Your task to perform on an android device: toggle wifi Image 0: 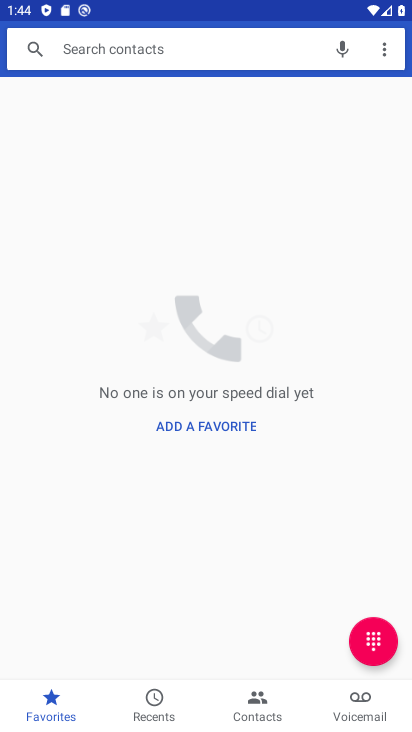
Step 0: press home button
Your task to perform on an android device: toggle wifi Image 1: 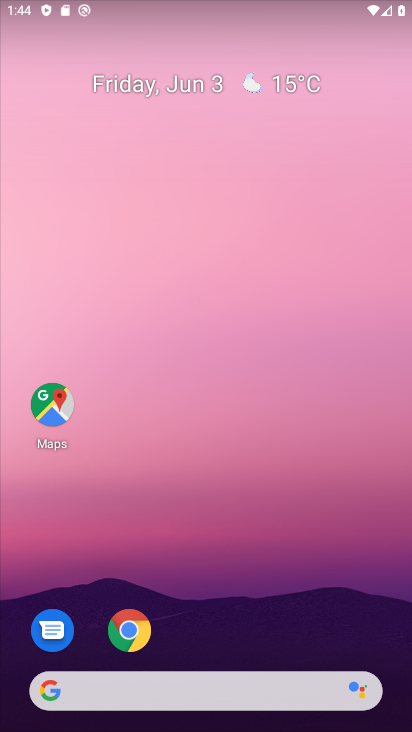
Step 1: drag from (391, 584) to (378, 84)
Your task to perform on an android device: toggle wifi Image 2: 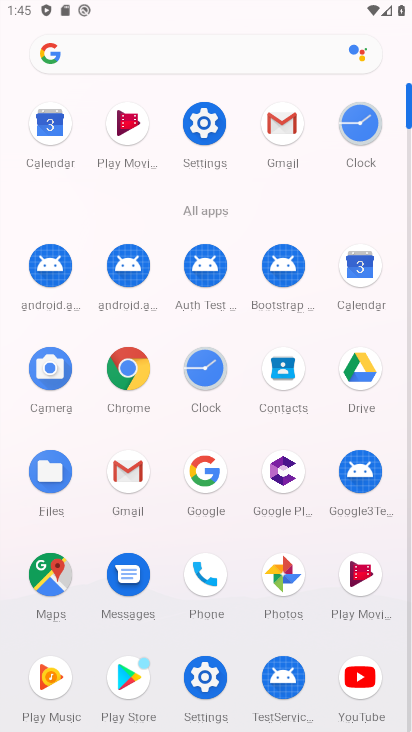
Step 2: click (202, 128)
Your task to perform on an android device: toggle wifi Image 3: 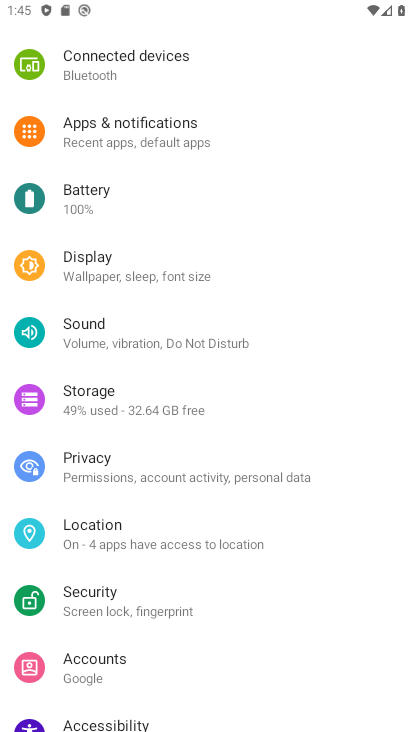
Step 3: drag from (266, 168) to (258, 614)
Your task to perform on an android device: toggle wifi Image 4: 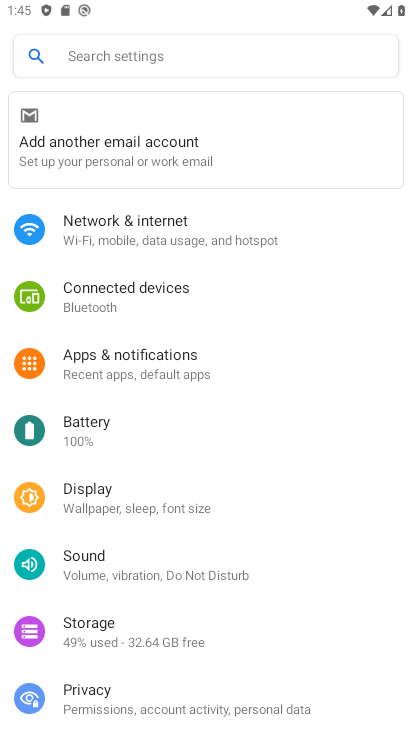
Step 4: click (160, 233)
Your task to perform on an android device: toggle wifi Image 5: 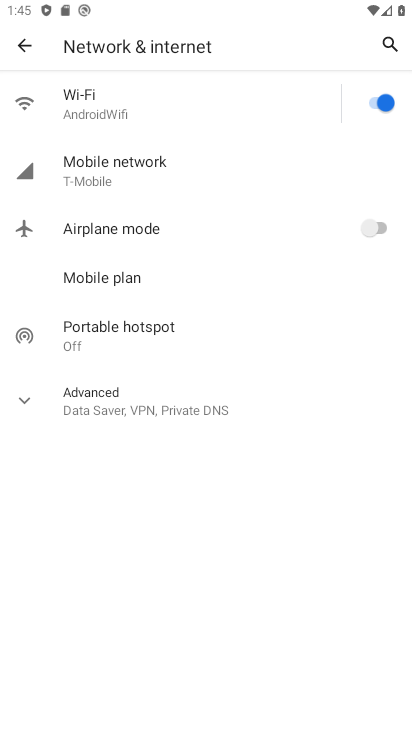
Step 5: click (371, 102)
Your task to perform on an android device: toggle wifi Image 6: 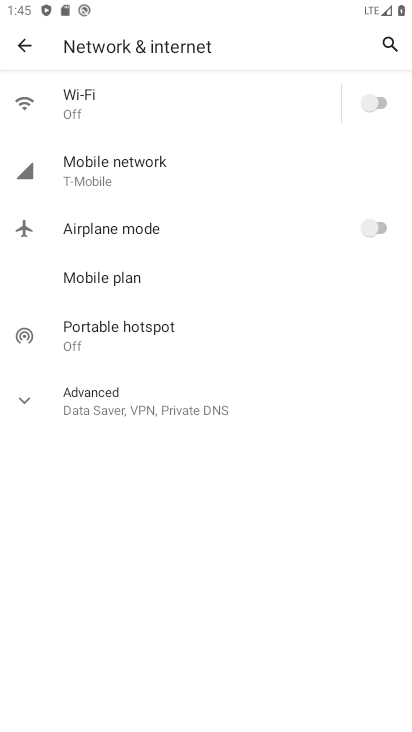
Step 6: task complete